Your task to perform on an android device: set default search engine in the chrome app Image 0: 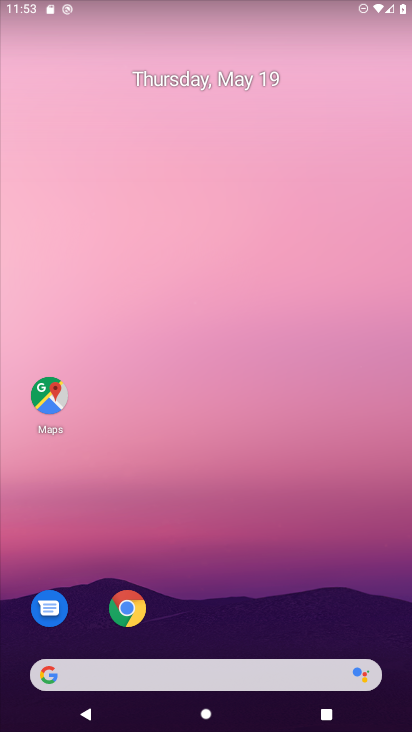
Step 0: press home button
Your task to perform on an android device: set default search engine in the chrome app Image 1: 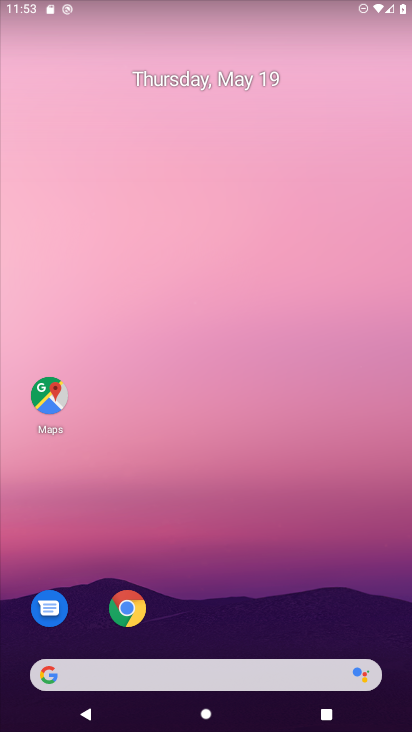
Step 1: click (145, 594)
Your task to perform on an android device: set default search engine in the chrome app Image 2: 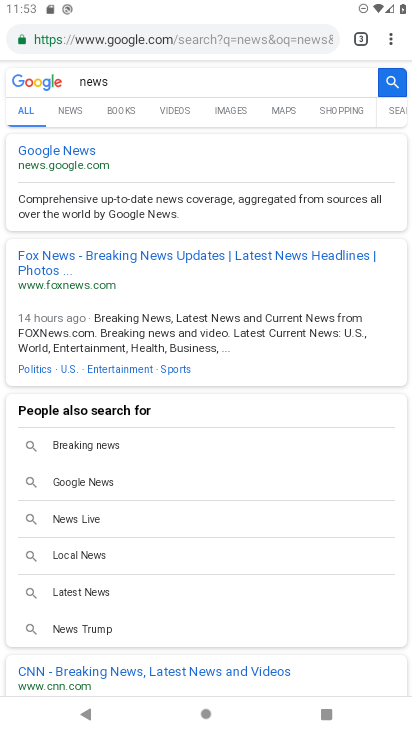
Step 2: drag from (392, 39) to (247, 445)
Your task to perform on an android device: set default search engine in the chrome app Image 3: 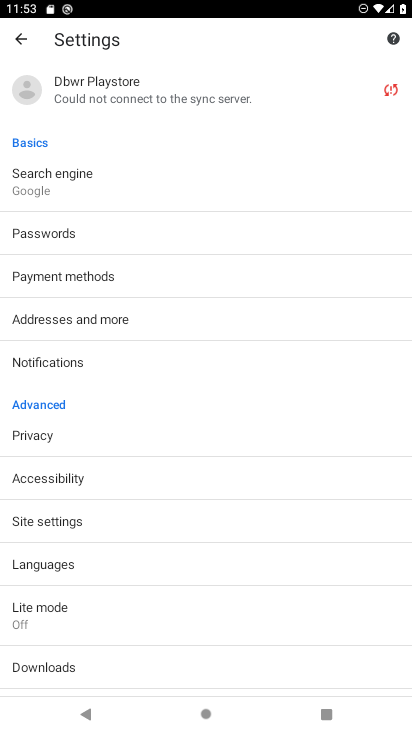
Step 3: click (98, 192)
Your task to perform on an android device: set default search engine in the chrome app Image 4: 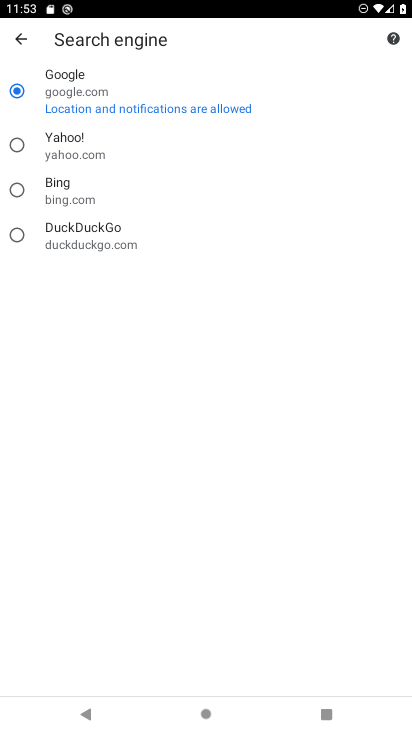
Step 4: task complete